Your task to perform on an android device: toggle pop-ups in chrome Image 0: 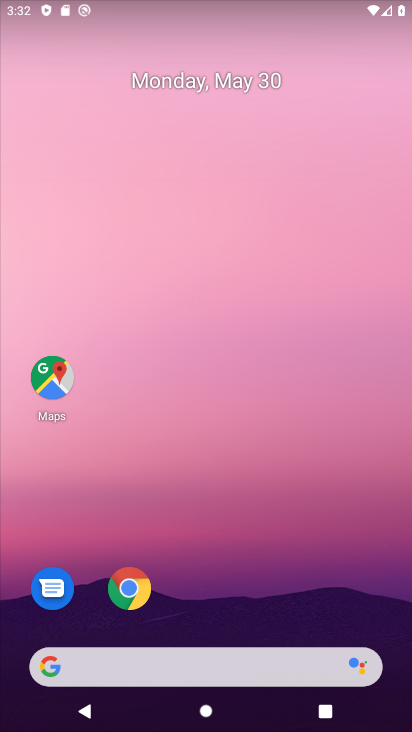
Step 0: click (131, 591)
Your task to perform on an android device: toggle pop-ups in chrome Image 1: 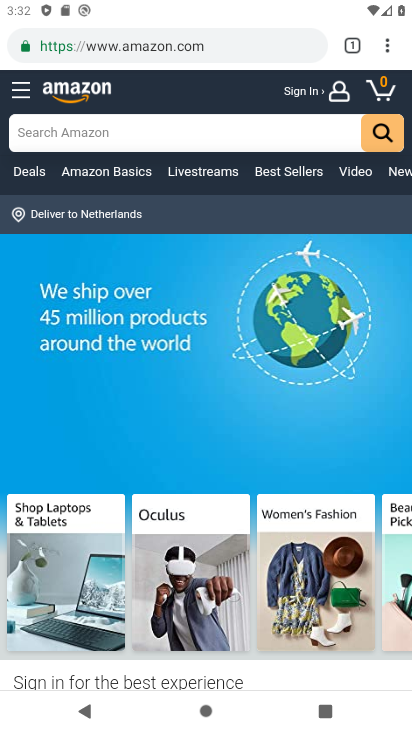
Step 1: click (384, 52)
Your task to perform on an android device: toggle pop-ups in chrome Image 2: 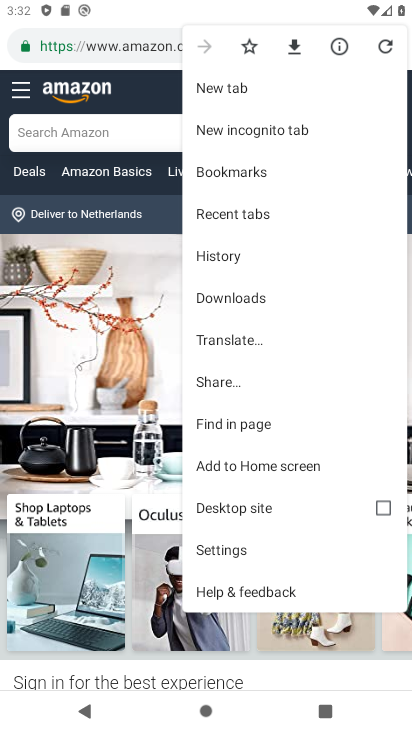
Step 2: click (226, 545)
Your task to perform on an android device: toggle pop-ups in chrome Image 3: 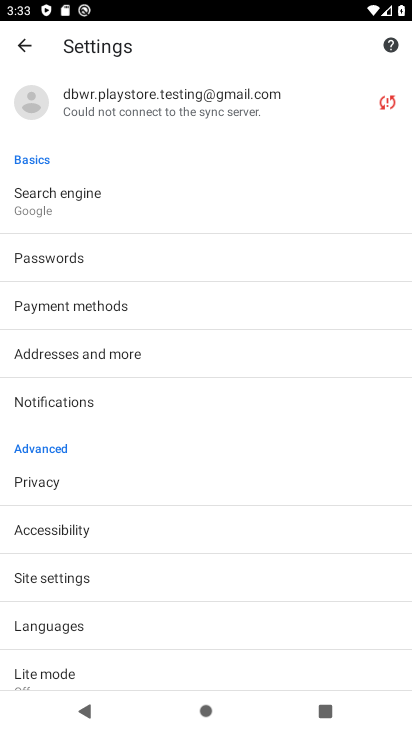
Step 3: drag from (165, 584) to (152, 491)
Your task to perform on an android device: toggle pop-ups in chrome Image 4: 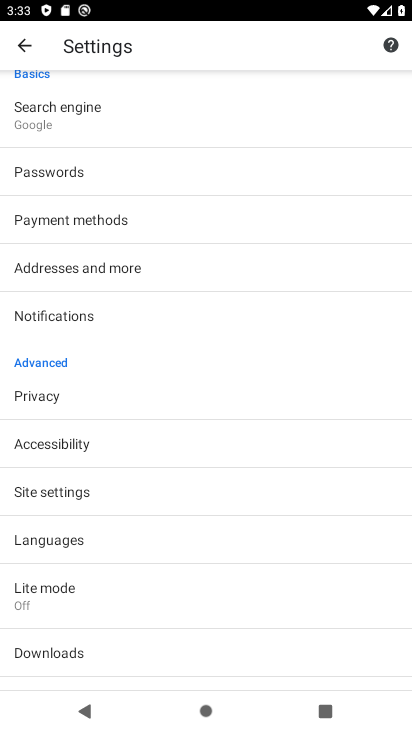
Step 4: click (72, 492)
Your task to perform on an android device: toggle pop-ups in chrome Image 5: 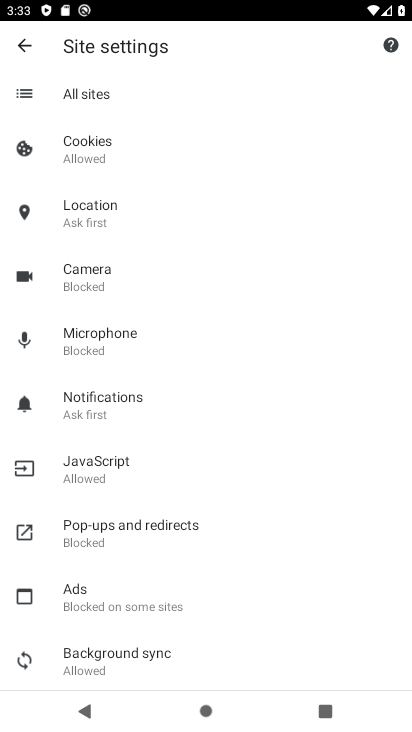
Step 5: click (116, 537)
Your task to perform on an android device: toggle pop-ups in chrome Image 6: 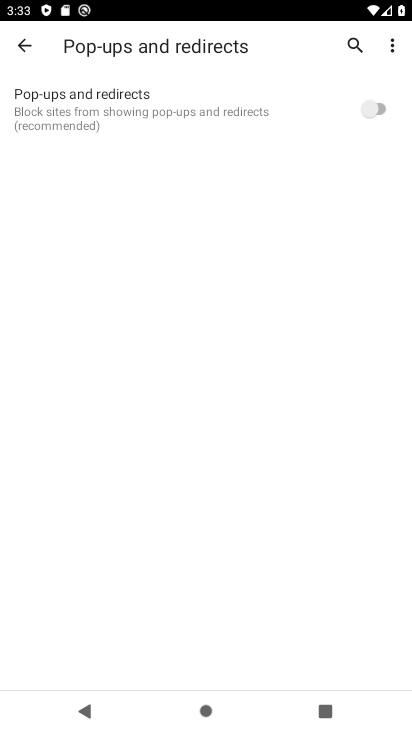
Step 6: click (381, 107)
Your task to perform on an android device: toggle pop-ups in chrome Image 7: 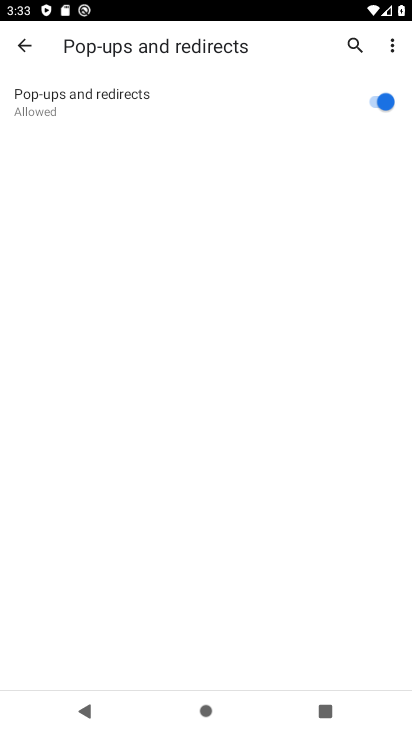
Step 7: task complete